Your task to perform on an android device: Open Android settings Image 0: 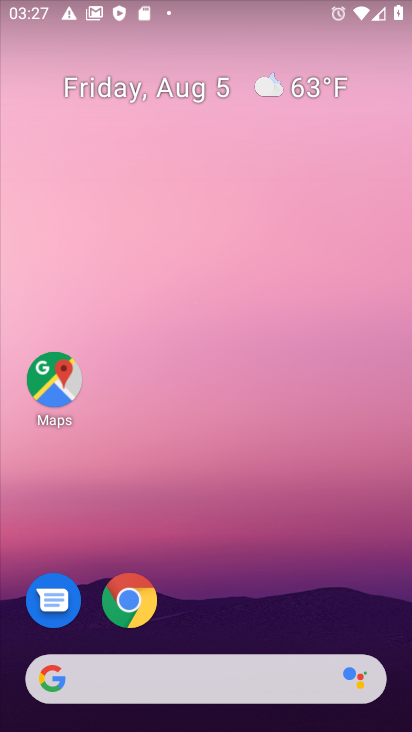
Step 0: drag from (169, 681) to (320, 182)
Your task to perform on an android device: Open Android settings Image 1: 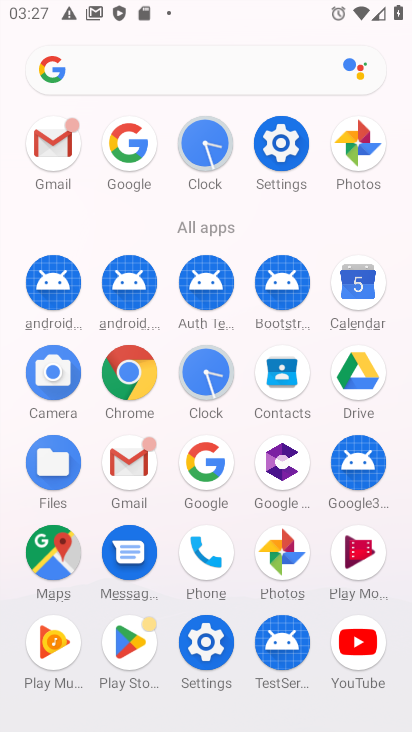
Step 1: click (278, 142)
Your task to perform on an android device: Open Android settings Image 2: 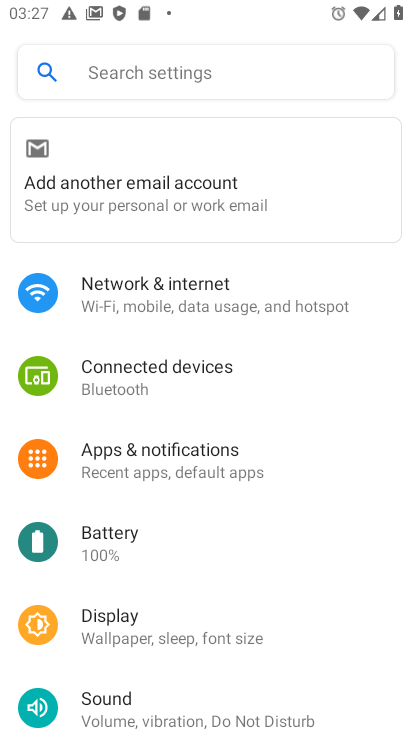
Step 2: task complete